Your task to perform on an android device: Open eBay Image 0: 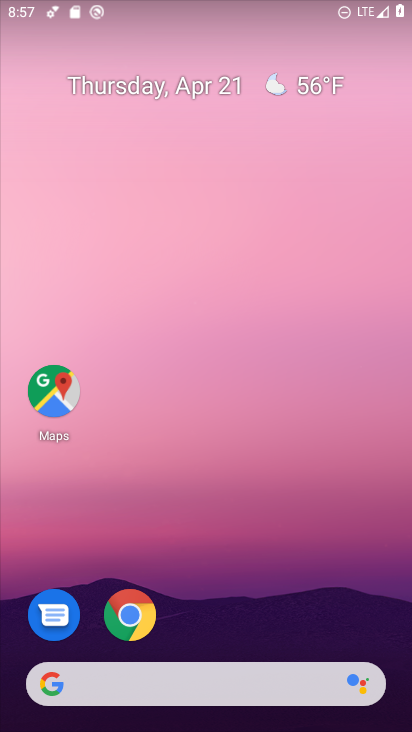
Step 0: drag from (287, 524) to (298, 8)
Your task to perform on an android device: Open eBay Image 1: 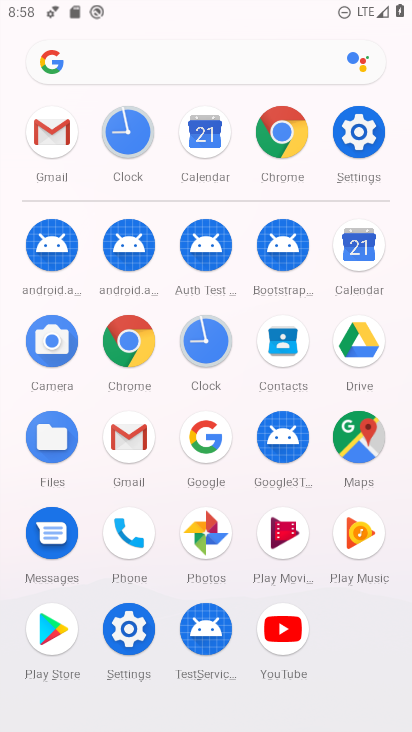
Step 1: click (279, 142)
Your task to perform on an android device: Open eBay Image 2: 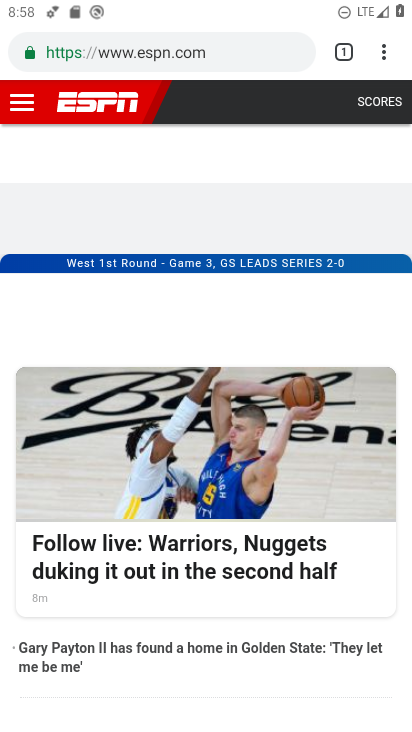
Step 2: drag from (384, 49) to (217, 99)
Your task to perform on an android device: Open eBay Image 3: 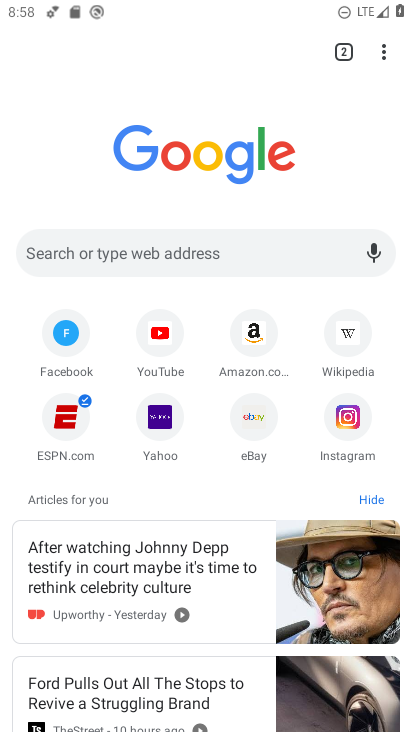
Step 3: click (240, 409)
Your task to perform on an android device: Open eBay Image 4: 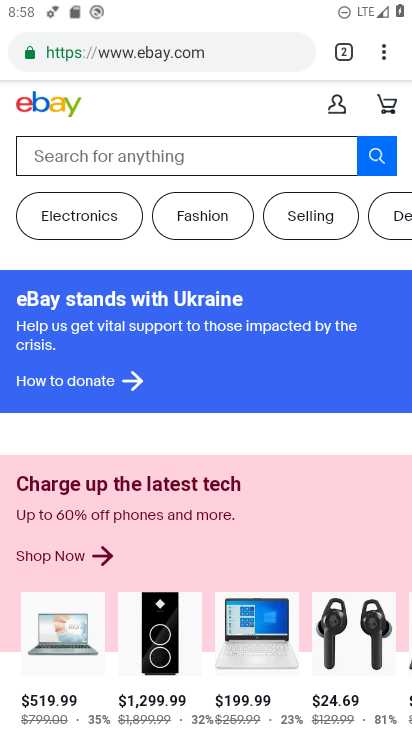
Step 4: task complete